Your task to perform on an android device: Open Reddit.com Image 0: 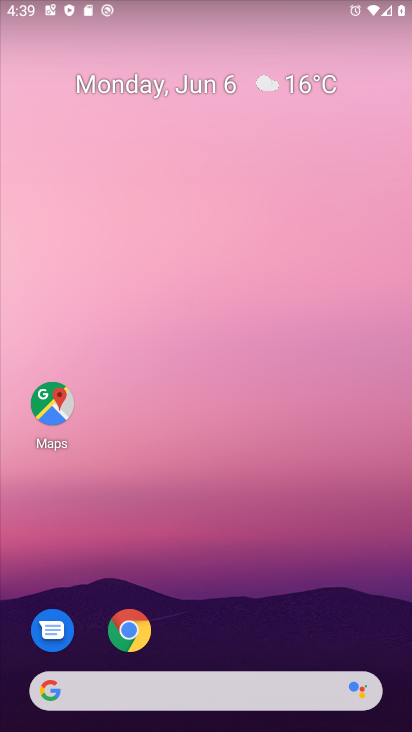
Step 0: press home button
Your task to perform on an android device: Open Reddit.com Image 1: 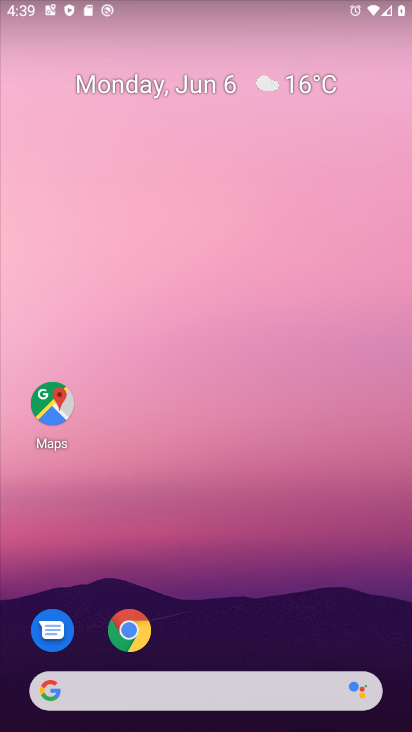
Step 1: click (127, 627)
Your task to perform on an android device: Open Reddit.com Image 2: 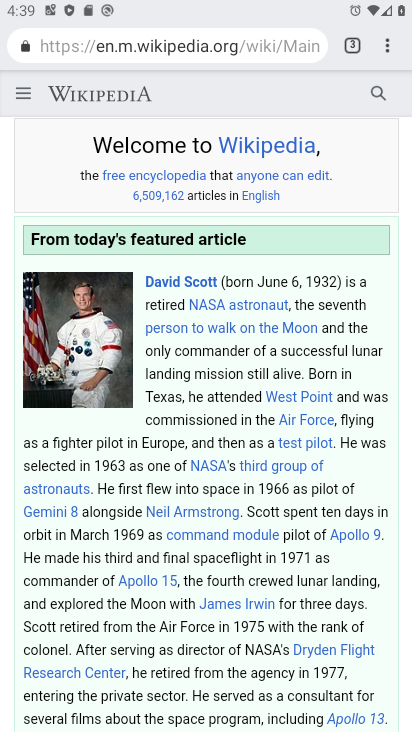
Step 2: click (359, 40)
Your task to perform on an android device: Open Reddit.com Image 3: 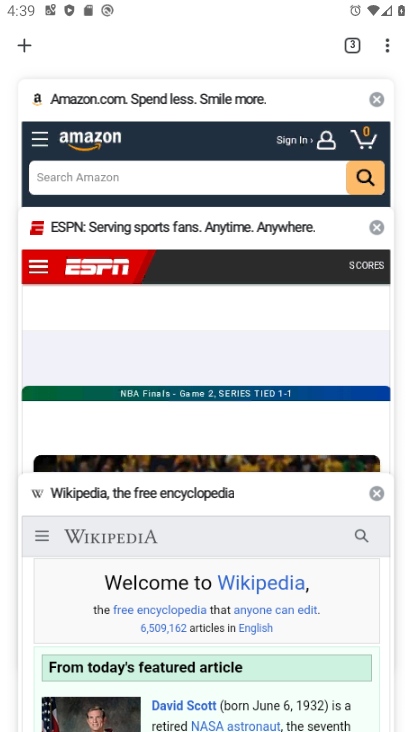
Step 3: click (25, 45)
Your task to perform on an android device: Open Reddit.com Image 4: 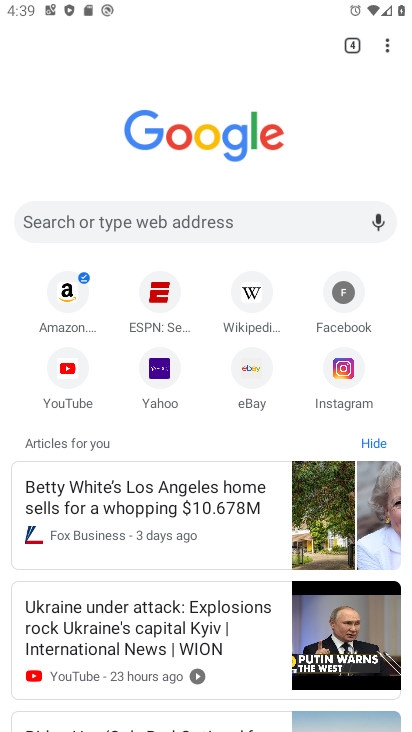
Step 4: click (156, 215)
Your task to perform on an android device: Open Reddit.com Image 5: 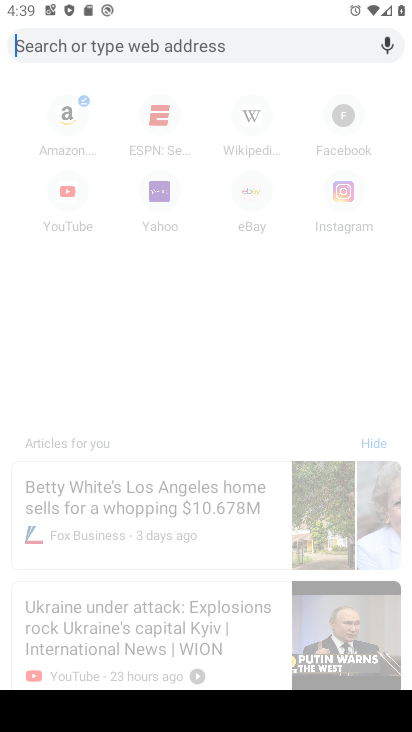
Step 5: type "reddit.com"
Your task to perform on an android device: Open Reddit.com Image 6: 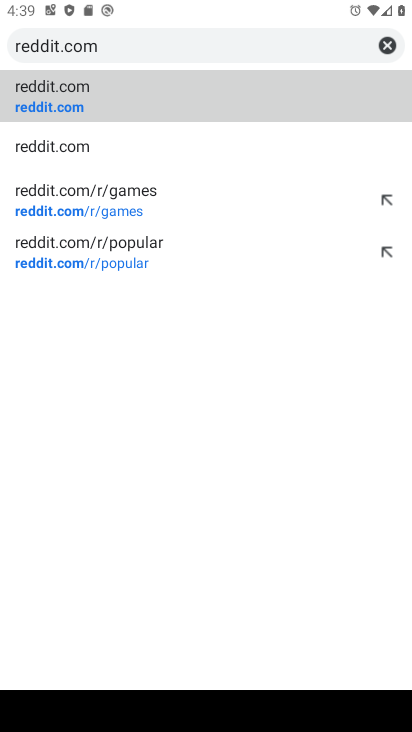
Step 6: click (166, 106)
Your task to perform on an android device: Open Reddit.com Image 7: 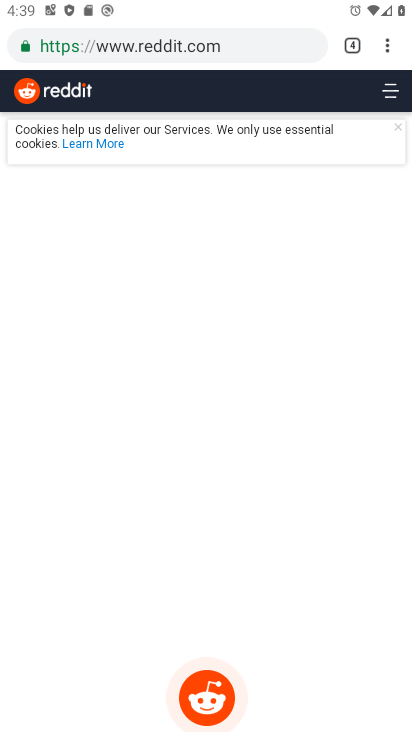
Step 7: task complete